Your task to perform on an android device: Add "beats solo 3" to the cart on costco.com, then select checkout. Image 0: 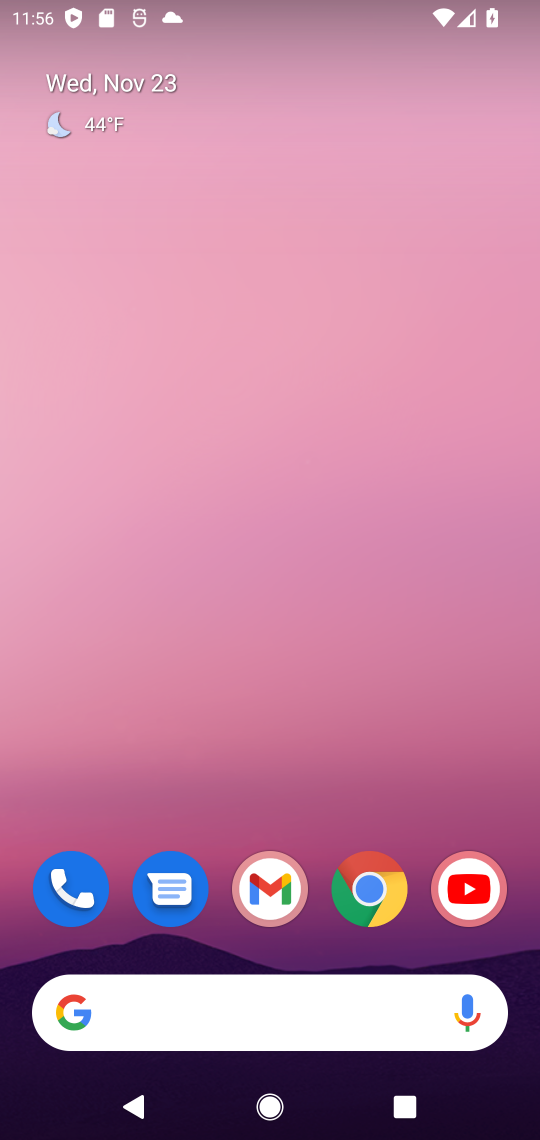
Step 0: click (359, 899)
Your task to perform on an android device: Add "beats solo 3" to the cart on costco.com, then select checkout. Image 1: 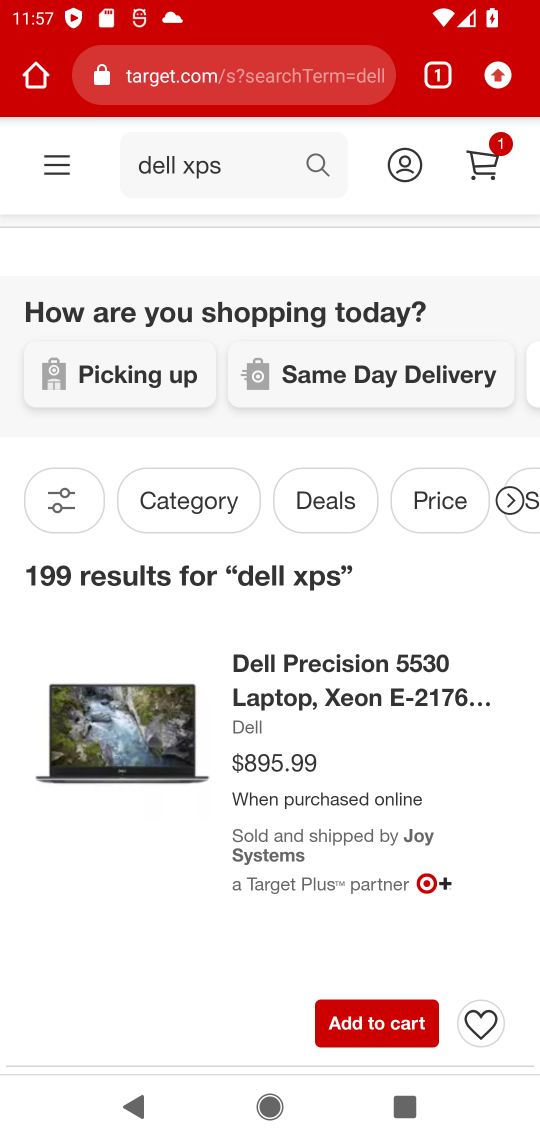
Step 1: click (188, 79)
Your task to perform on an android device: Add "beats solo 3" to the cart on costco.com, then select checkout. Image 2: 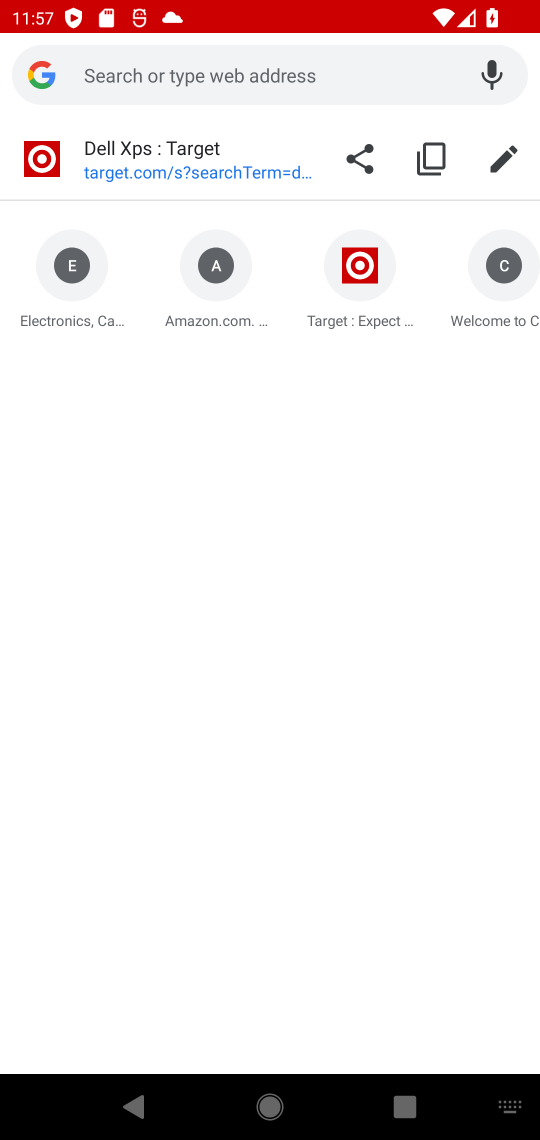
Step 2: type "costco.com"
Your task to perform on an android device: Add "beats solo 3" to the cart on costco.com, then select checkout. Image 3: 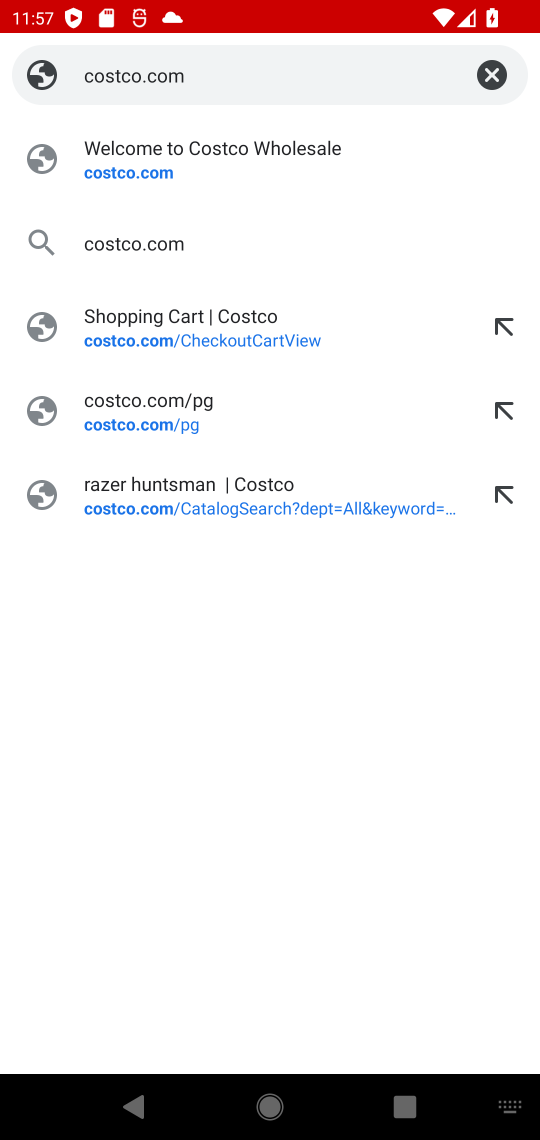
Step 3: click (134, 173)
Your task to perform on an android device: Add "beats solo 3" to the cart on costco.com, then select checkout. Image 4: 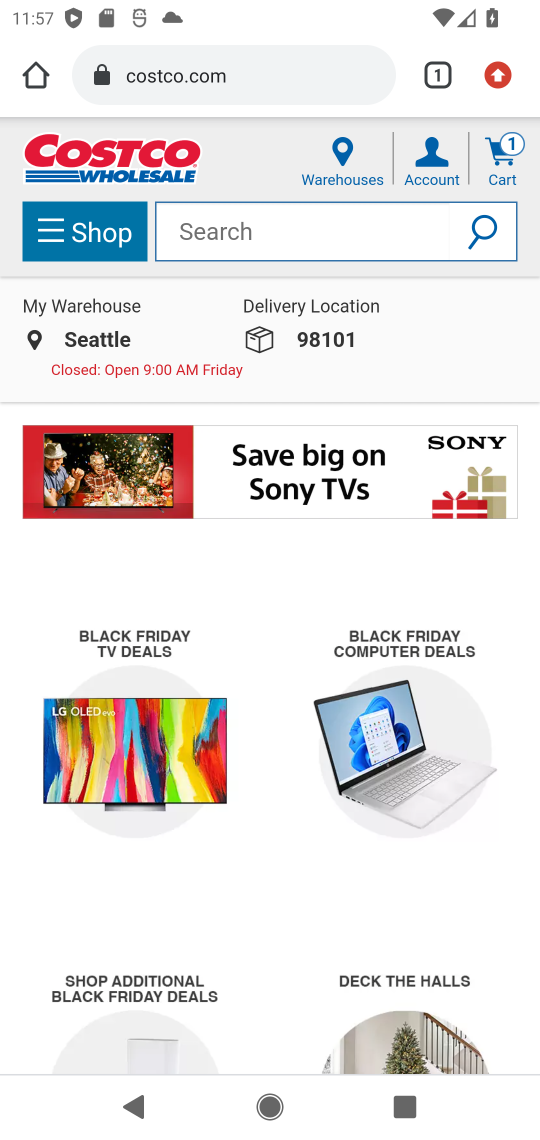
Step 4: click (208, 242)
Your task to perform on an android device: Add "beats solo 3" to the cart on costco.com, then select checkout. Image 5: 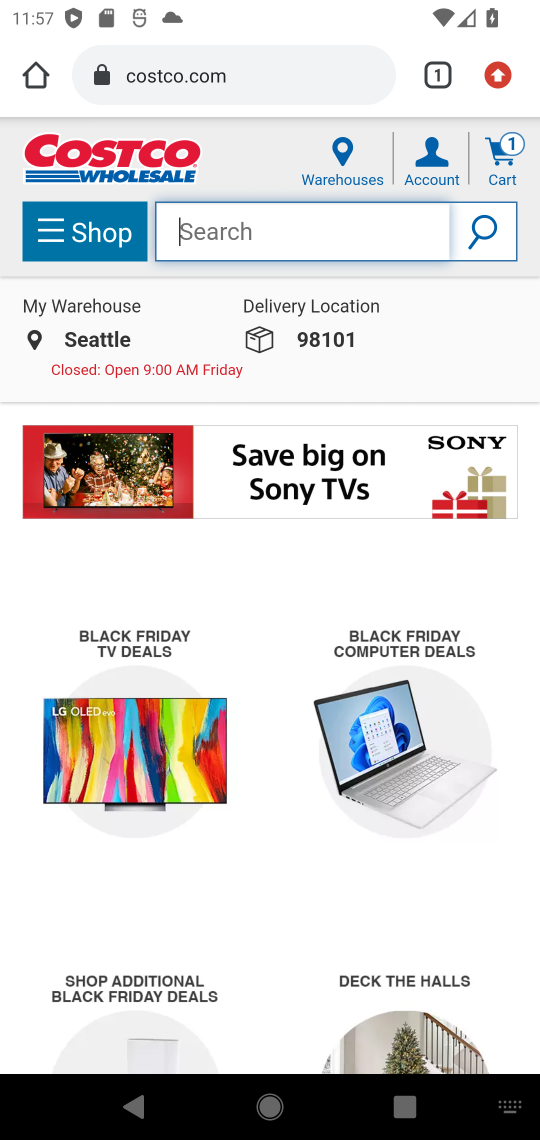
Step 5: type "beats solo 3"
Your task to perform on an android device: Add "beats solo 3" to the cart on costco.com, then select checkout. Image 6: 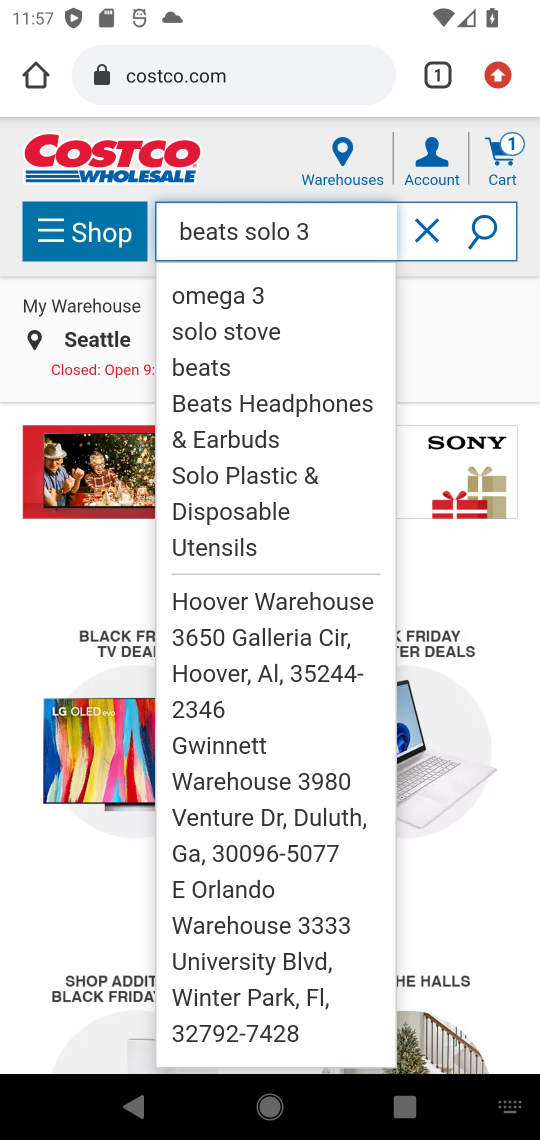
Step 6: click (477, 227)
Your task to perform on an android device: Add "beats solo 3" to the cart on costco.com, then select checkout. Image 7: 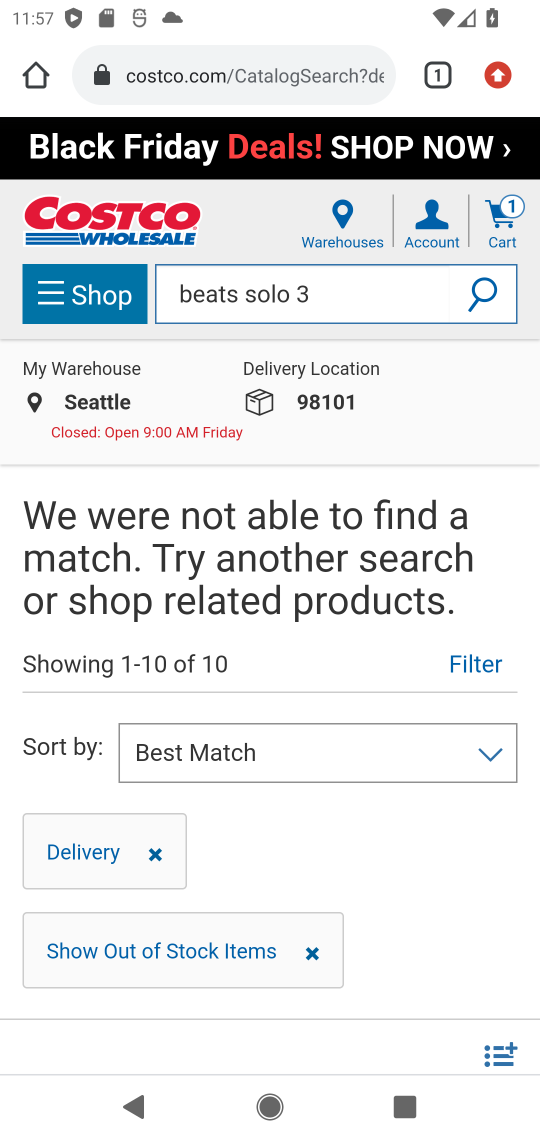
Step 7: task complete